Your task to perform on an android device: check the backup settings in the google photos Image 0: 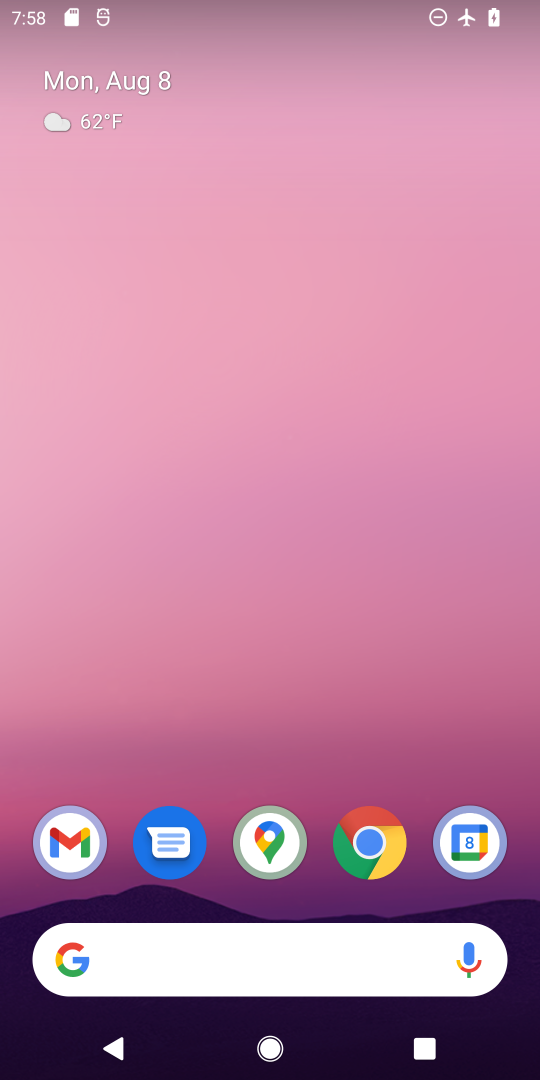
Step 0: drag from (266, 515) to (237, 233)
Your task to perform on an android device: check the backup settings in the google photos Image 1: 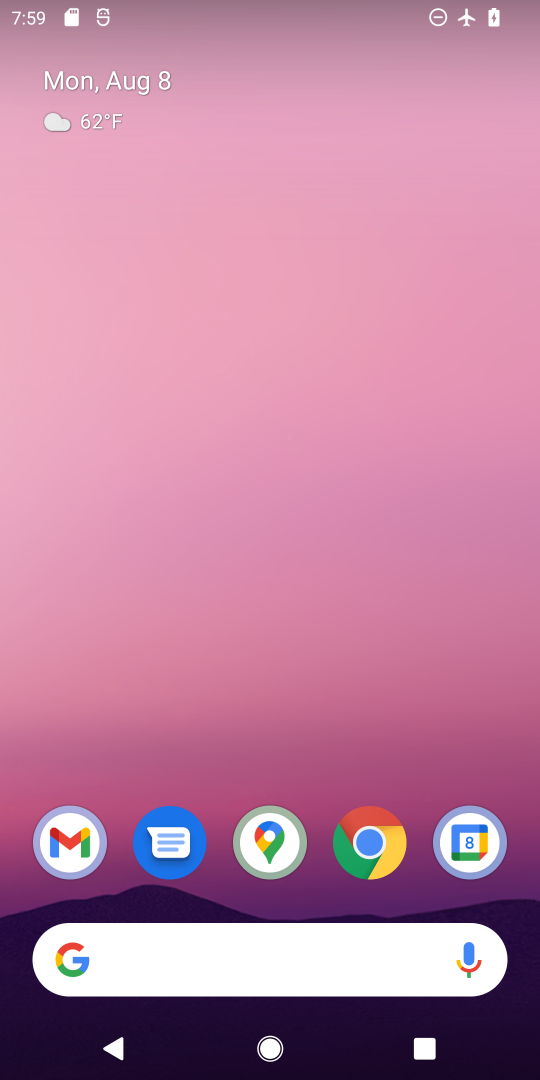
Step 1: drag from (254, 708) to (168, 72)
Your task to perform on an android device: check the backup settings in the google photos Image 2: 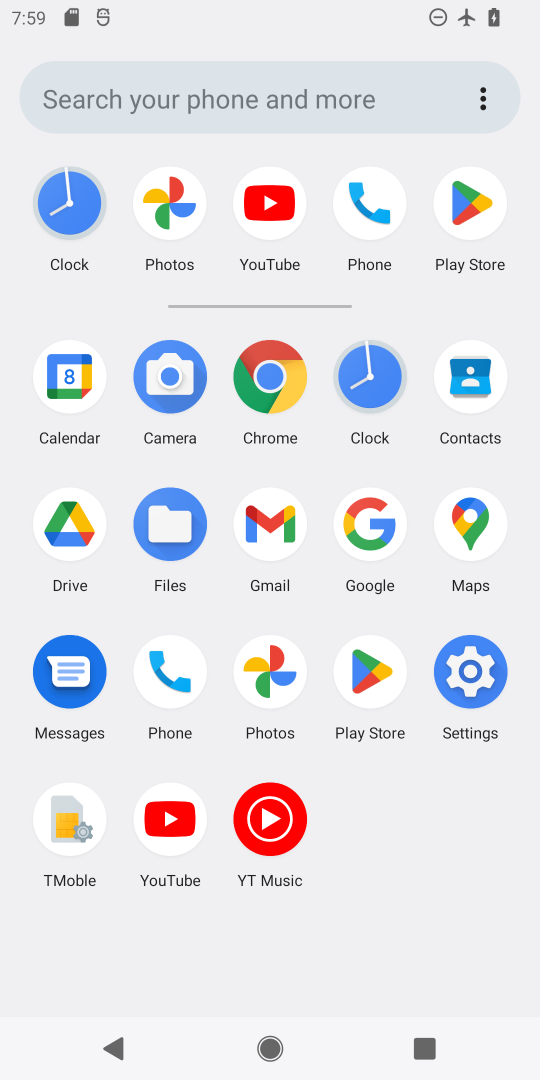
Step 2: click (272, 690)
Your task to perform on an android device: check the backup settings in the google photos Image 3: 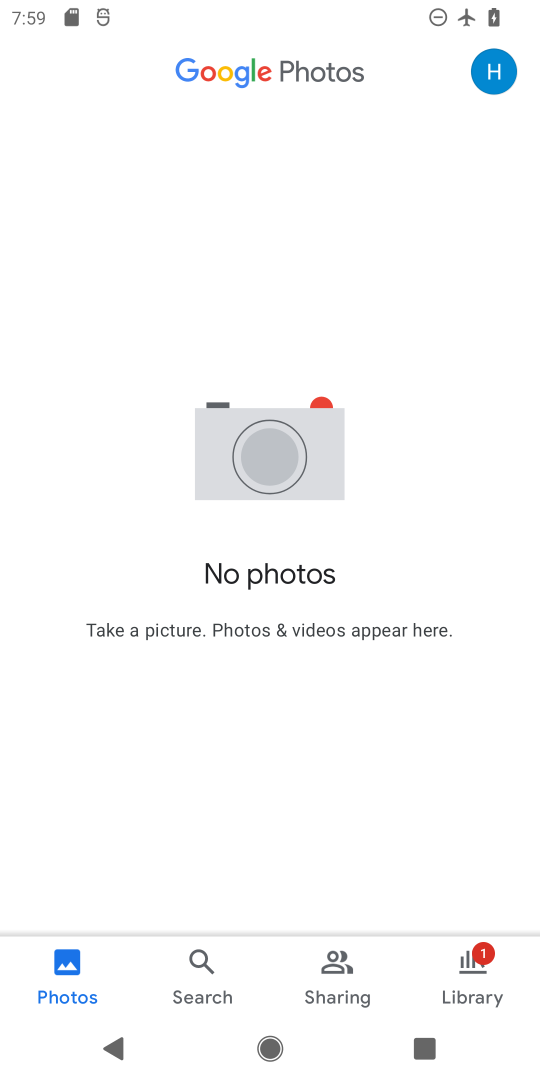
Step 3: click (481, 71)
Your task to perform on an android device: check the backup settings in the google photos Image 4: 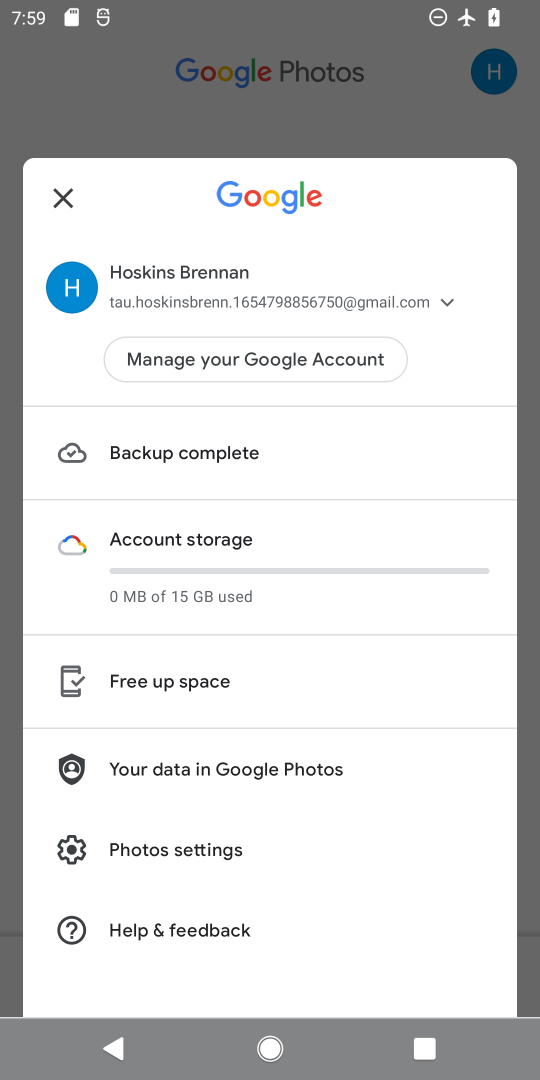
Step 4: click (157, 851)
Your task to perform on an android device: check the backup settings in the google photos Image 5: 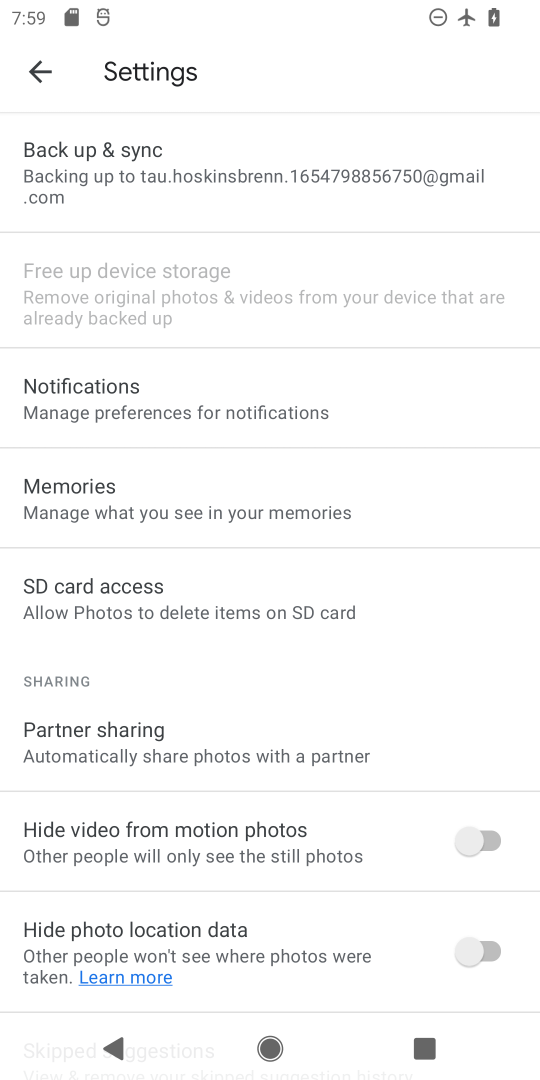
Step 5: click (199, 131)
Your task to perform on an android device: check the backup settings in the google photos Image 6: 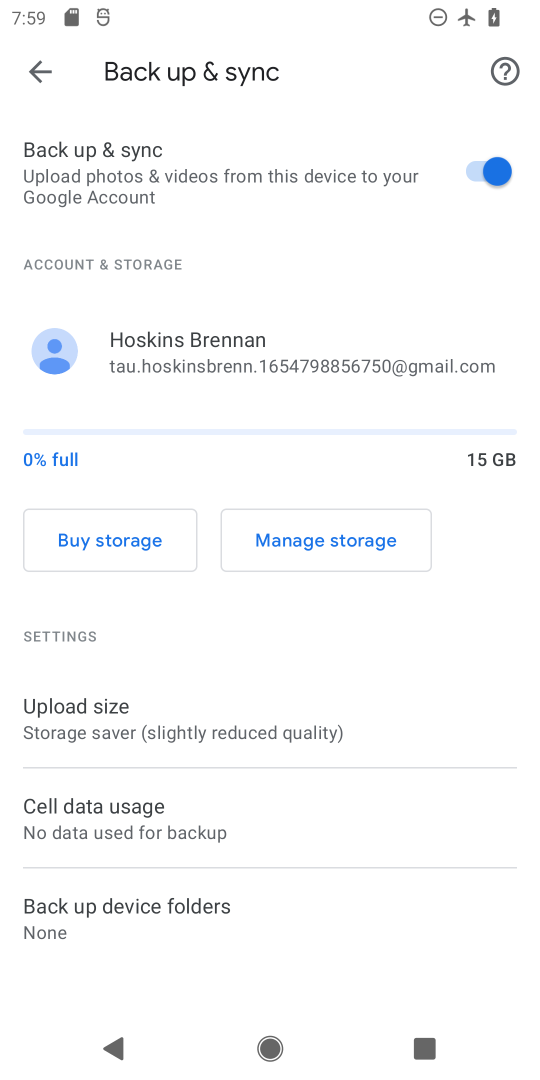
Step 6: task complete